Your task to perform on an android device: create a new album in the google photos Image 0: 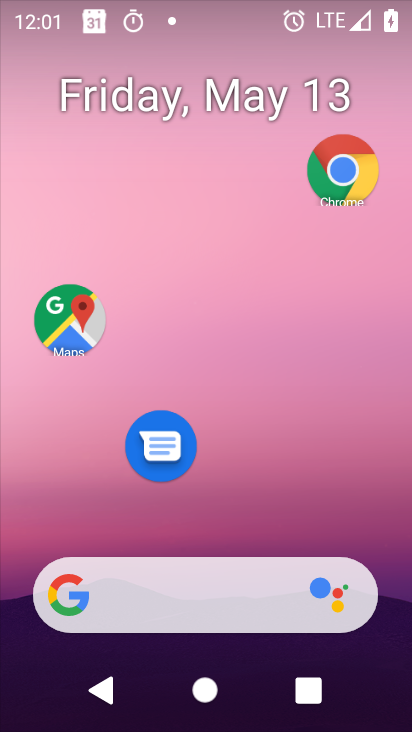
Step 0: drag from (299, 636) to (362, 75)
Your task to perform on an android device: create a new album in the google photos Image 1: 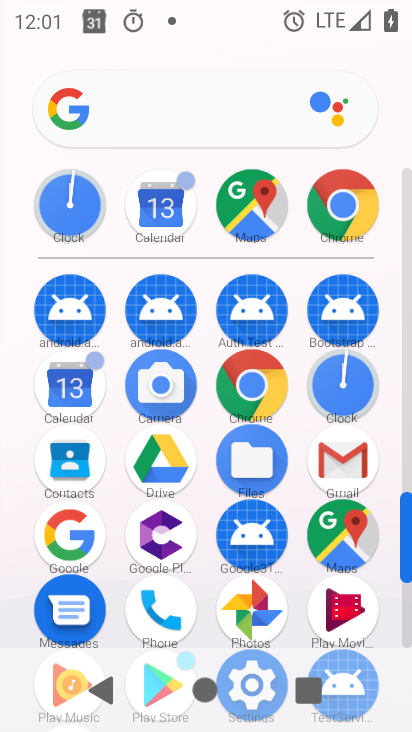
Step 1: click (234, 612)
Your task to perform on an android device: create a new album in the google photos Image 2: 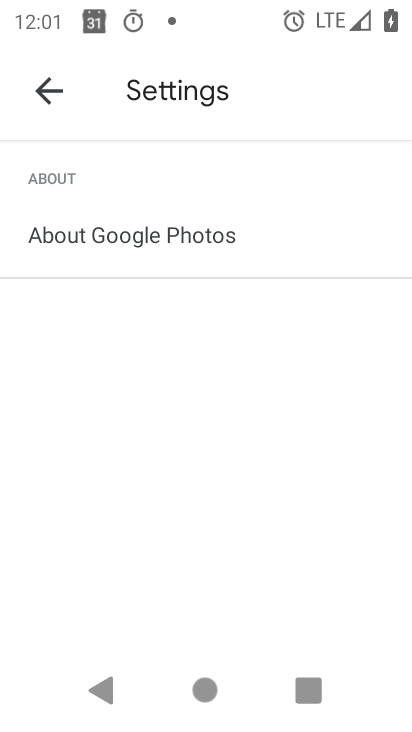
Step 2: press back button
Your task to perform on an android device: create a new album in the google photos Image 3: 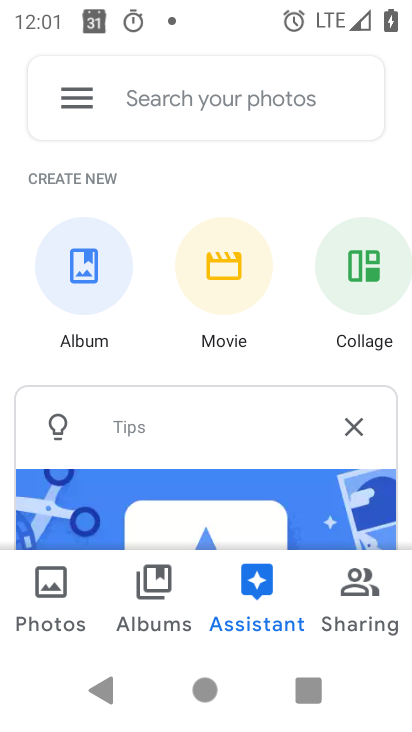
Step 3: click (160, 591)
Your task to perform on an android device: create a new album in the google photos Image 4: 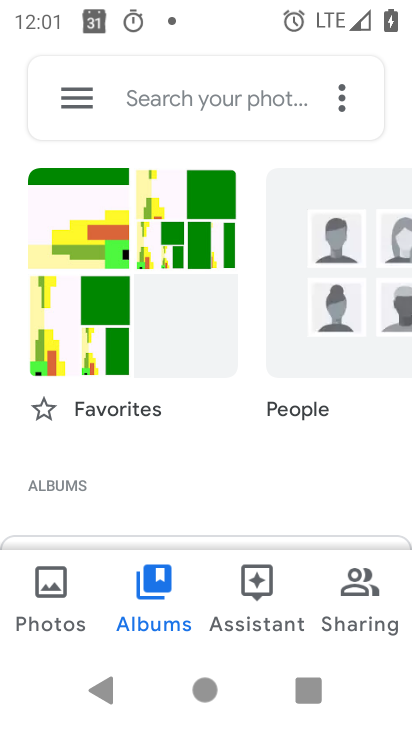
Step 4: drag from (248, 486) to (291, 83)
Your task to perform on an android device: create a new album in the google photos Image 5: 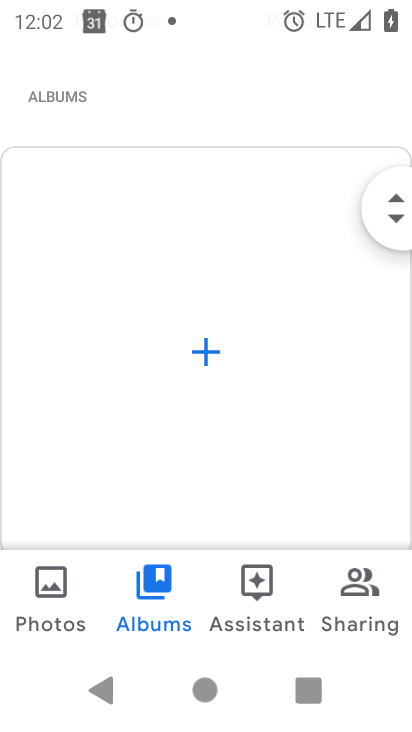
Step 5: click (212, 354)
Your task to perform on an android device: create a new album in the google photos Image 6: 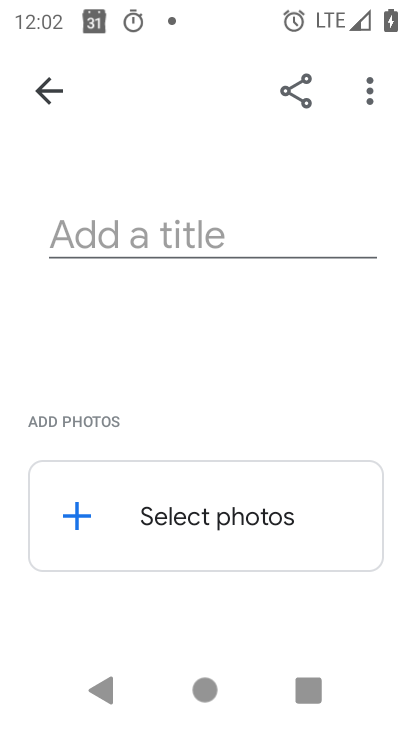
Step 6: click (289, 246)
Your task to perform on an android device: create a new album in the google photos Image 7: 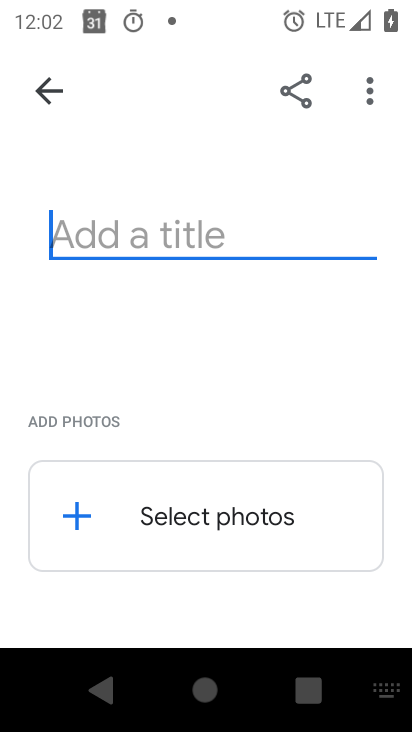
Step 7: type "gfhgfh"
Your task to perform on an android device: create a new album in the google photos Image 8: 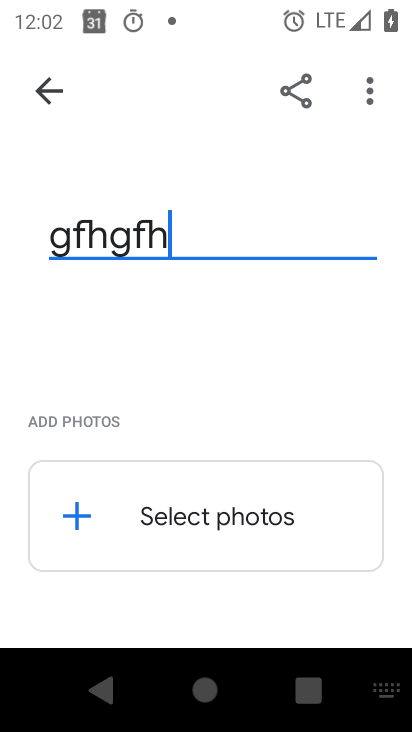
Step 8: click (70, 519)
Your task to perform on an android device: create a new album in the google photos Image 9: 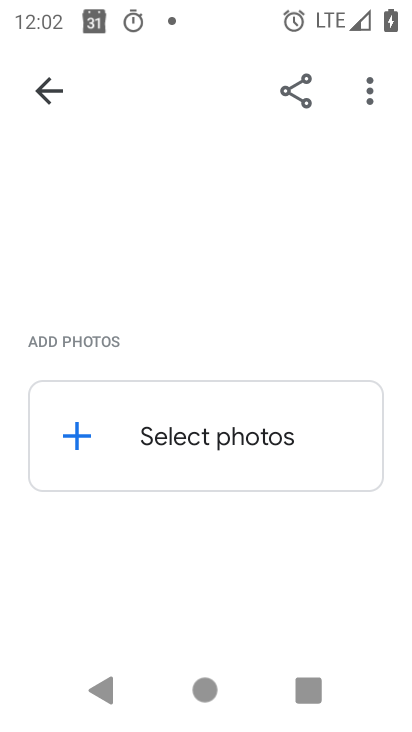
Step 9: click (72, 442)
Your task to perform on an android device: create a new album in the google photos Image 10: 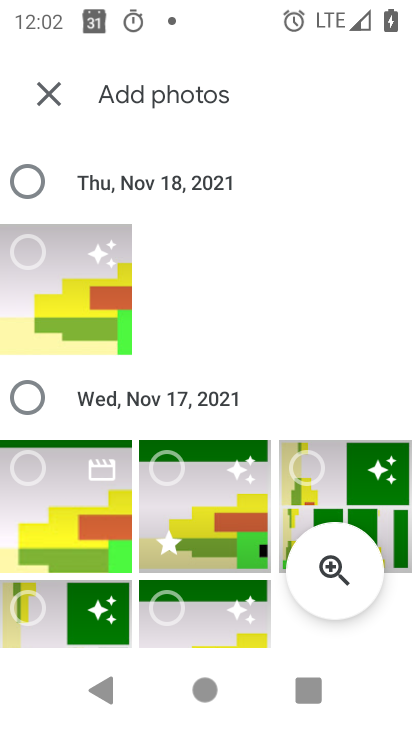
Step 10: click (80, 316)
Your task to perform on an android device: create a new album in the google photos Image 11: 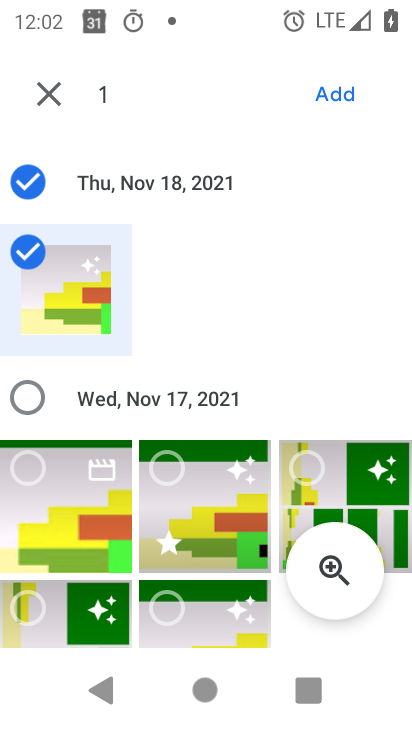
Step 11: click (349, 93)
Your task to perform on an android device: create a new album in the google photos Image 12: 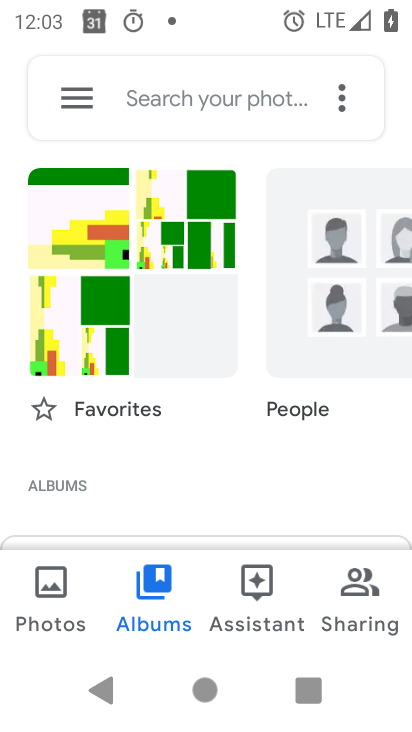
Step 12: task complete